Your task to perform on an android device: Open location settings Image 0: 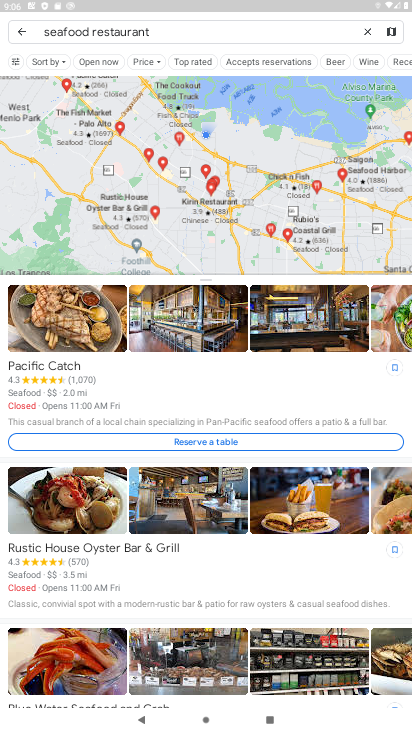
Step 0: press home button
Your task to perform on an android device: Open location settings Image 1: 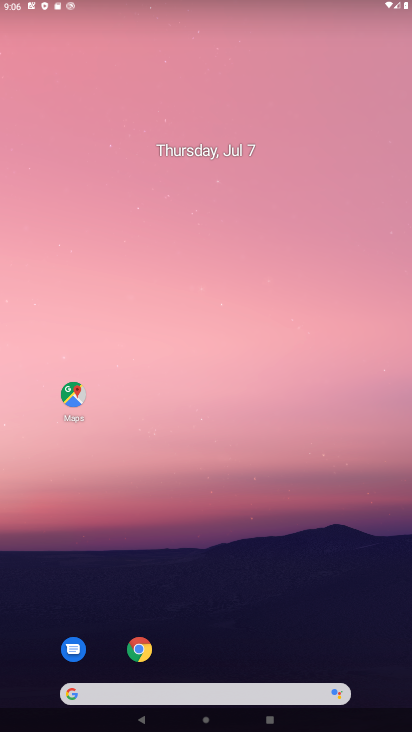
Step 1: drag from (222, 680) to (189, 60)
Your task to perform on an android device: Open location settings Image 2: 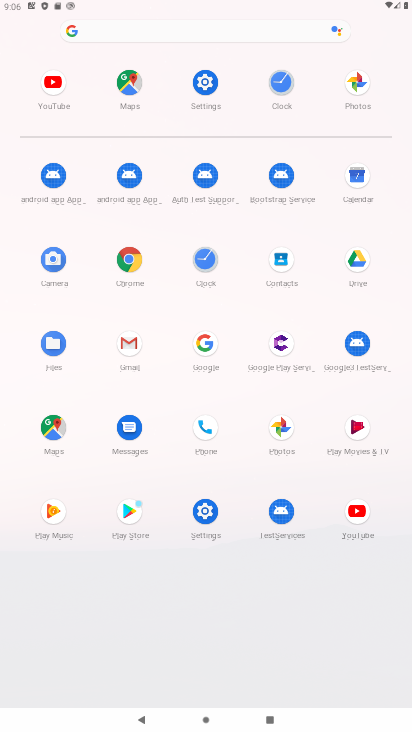
Step 2: click (205, 82)
Your task to perform on an android device: Open location settings Image 3: 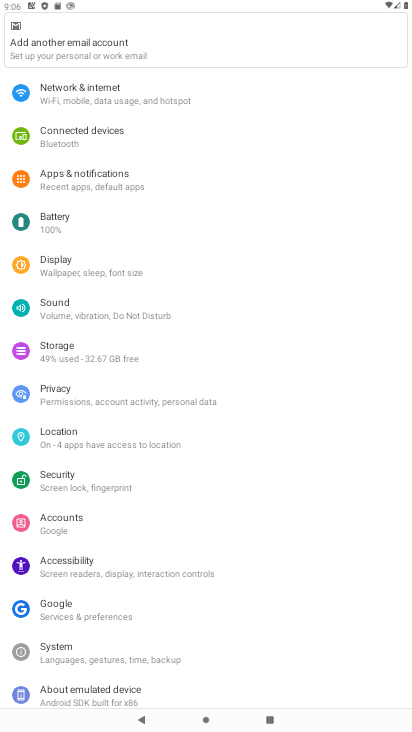
Step 3: click (62, 435)
Your task to perform on an android device: Open location settings Image 4: 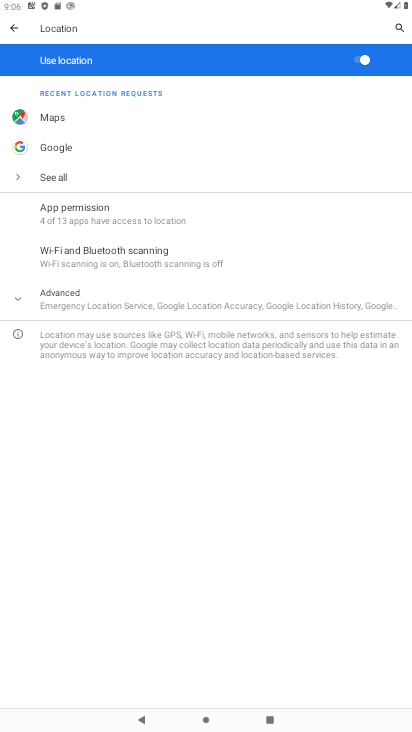
Step 4: task complete